Your task to perform on an android device: What's on my calendar today? Image 0: 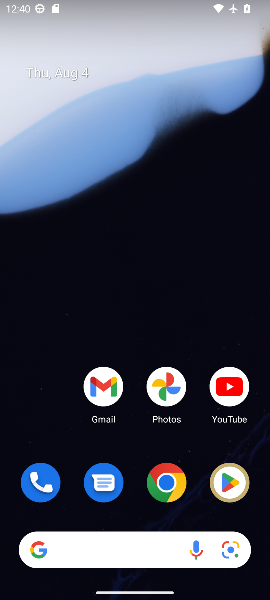
Step 0: drag from (134, 437) to (135, 165)
Your task to perform on an android device: What's on my calendar today? Image 1: 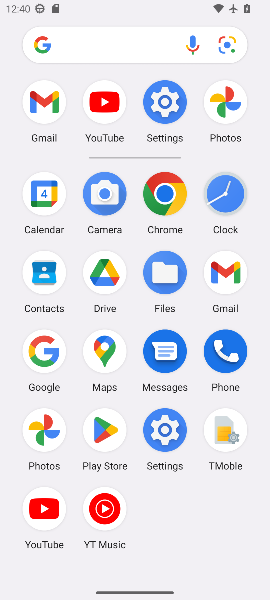
Step 1: click (49, 210)
Your task to perform on an android device: What's on my calendar today? Image 2: 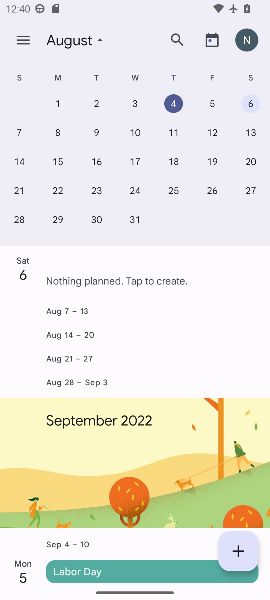
Step 2: click (170, 103)
Your task to perform on an android device: What's on my calendar today? Image 3: 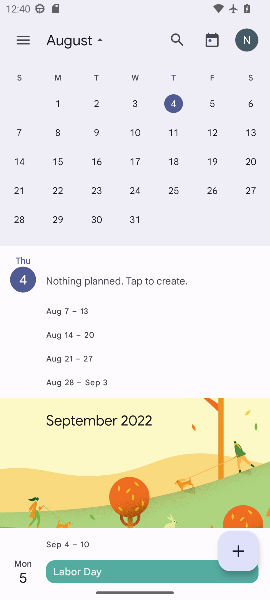
Step 3: task complete